Your task to perform on an android device: Open the stopwatch Image 0: 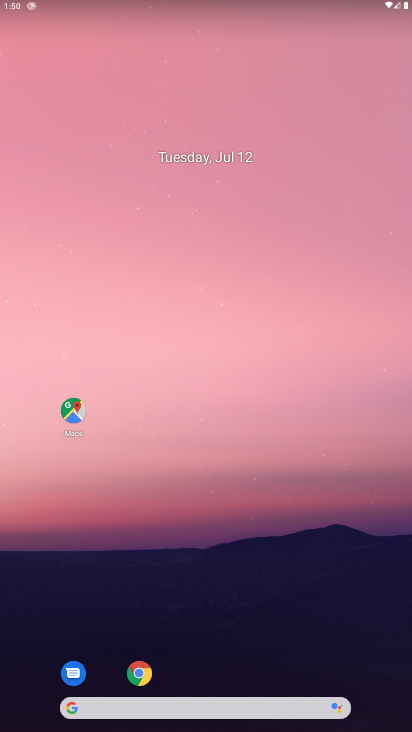
Step 0: drag from (288, 703) to (303, 165)
Your task to perform on an android device: Open the stopwatch Image 1: 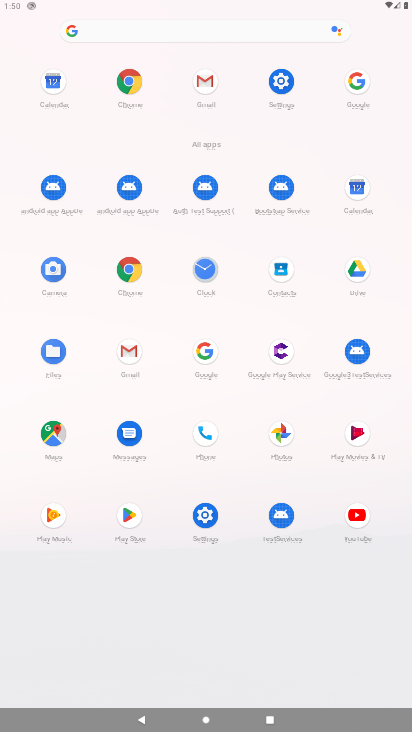
Step 1: click (200, 280)
Your task to perform on an android device: Open the stopwatch Image 2: 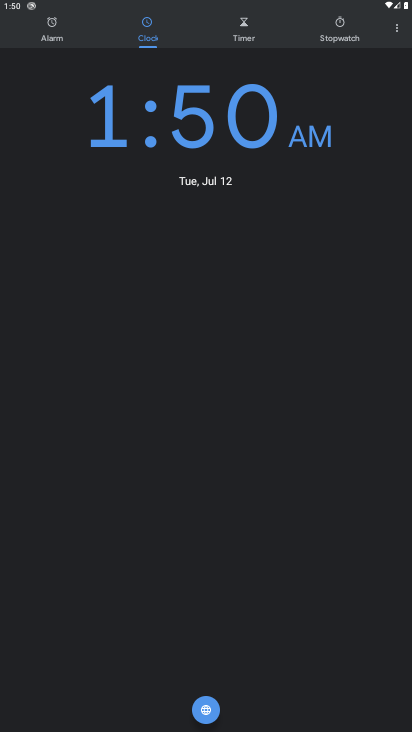
Step 2: click (330, 38)
Your task to perform on an android device: Open the stopwatch Image 3: 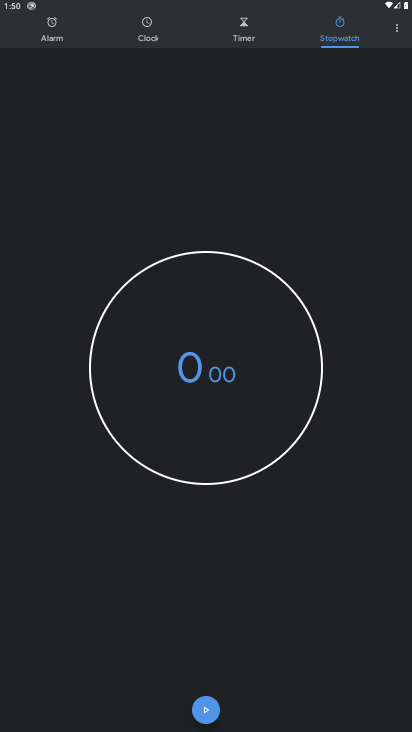
Step 3: task complete